Your task to perform on an android device: Open Yahoo.com Image 0: 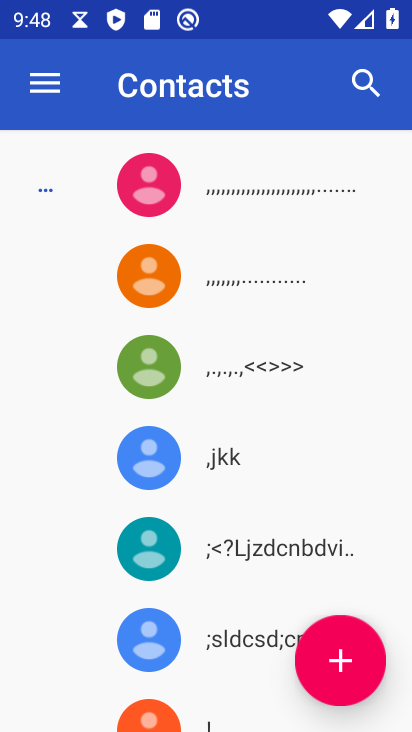
Step 0: press home button
Your task to perform on an android device: Open Yahoo.com Image 1: 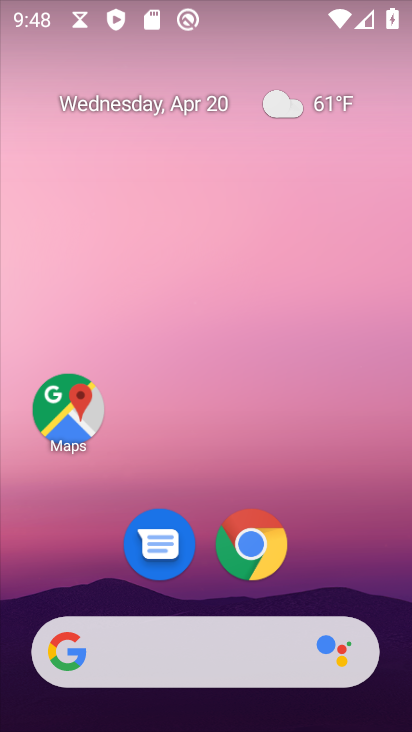
Step 1: drag from (160, 650) to (326, 84)
Your task to perform on an android device: Open Yahoo.com Image 2: 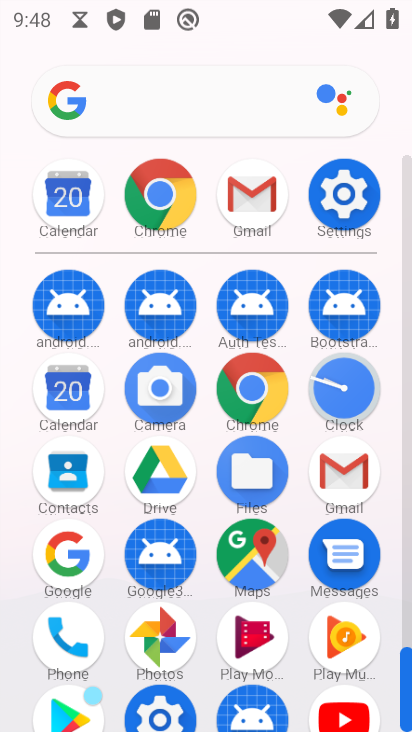
Step 2: click (171, 205)
Your task to perform on an android device: Open Yahoo.com Image 3: 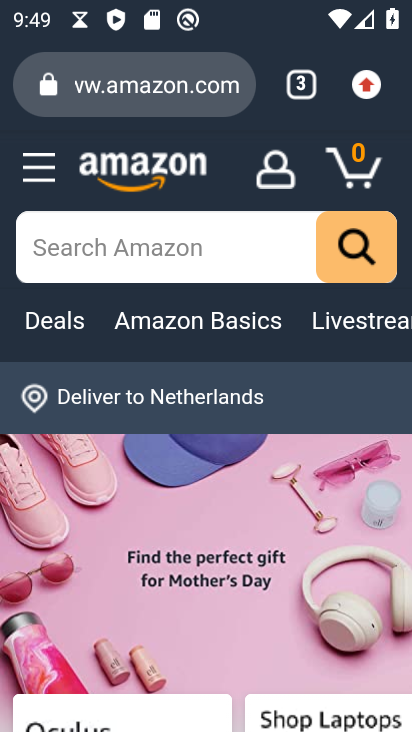
Step 3: click (365, 105)
Your task to perform on an android device: Open Yahoo.com Image 4: 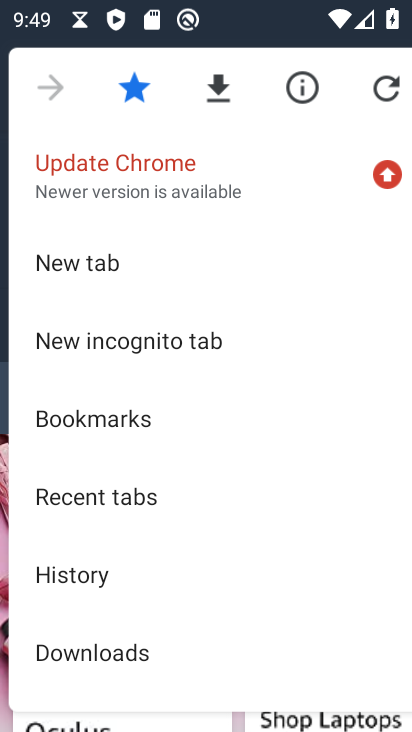
Step 4: click (100, 261)
Your task to perform on an android device: Open Yahoo.com Image 5: 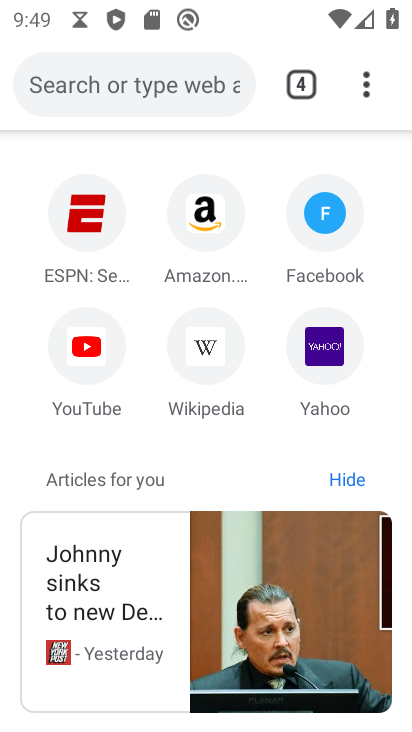
Step 5: click (322, 365)
Your task to perform on an android device: Open Yahoo.com Image 6: 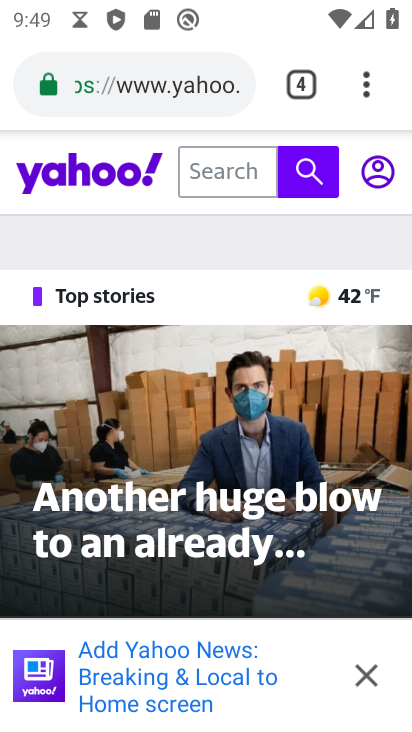
Step 6: task complete